Your task to perform on an android device: Open privacy settings Image 0: 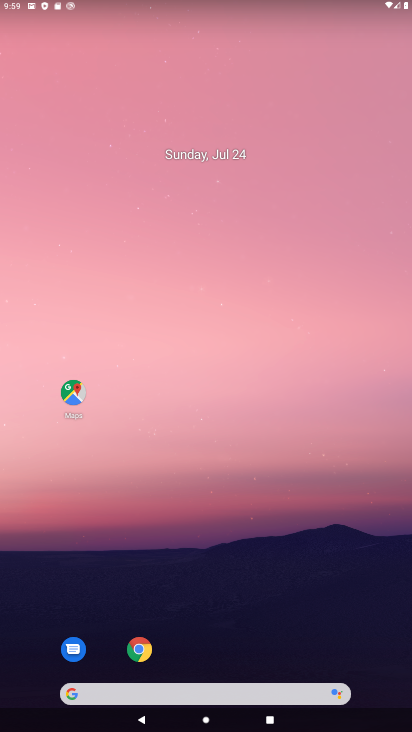
Step 0: drag from (256, 538) to (232, 11)
Your task to perform on an android device: Open privacy settings Image 1: 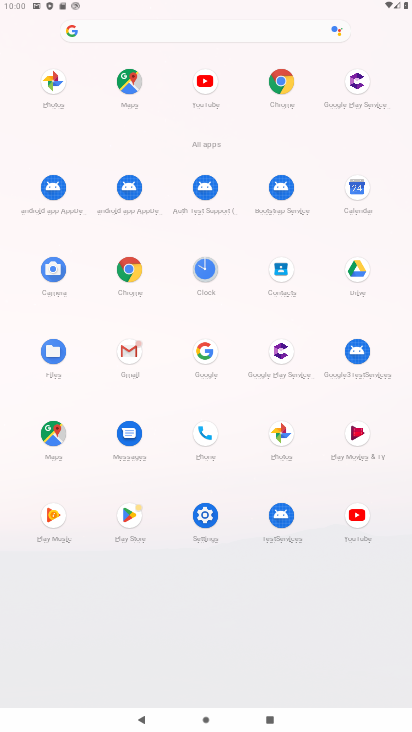
Step 1: click (210, 518)
Your task to perform on an android device: Open privacy settings Image 2: 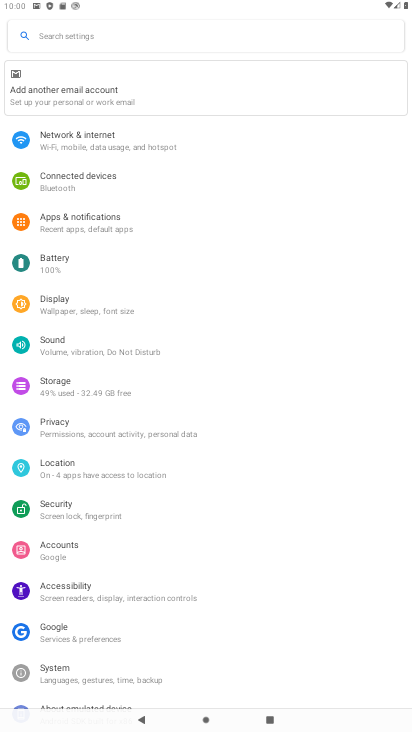
Step 2: click (89, 428)
Your task to perform on an android device: Open privacy settings Image 3: 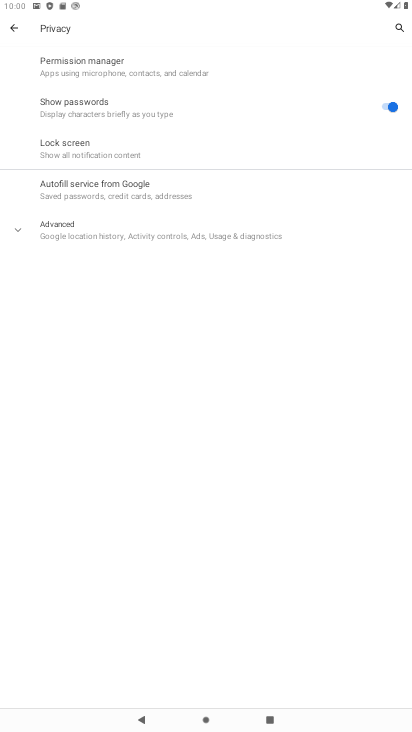
Step 3: task complete